Your task to perform on an android device: create a new album in the google photos Image 0: 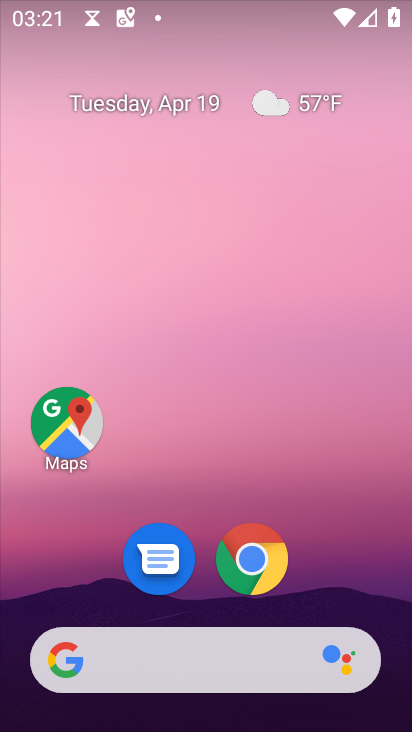
Step 0: drag from (207, 604) to (210, 28)
Your task to perform on an android device: create a new album in the google photos Image 1: 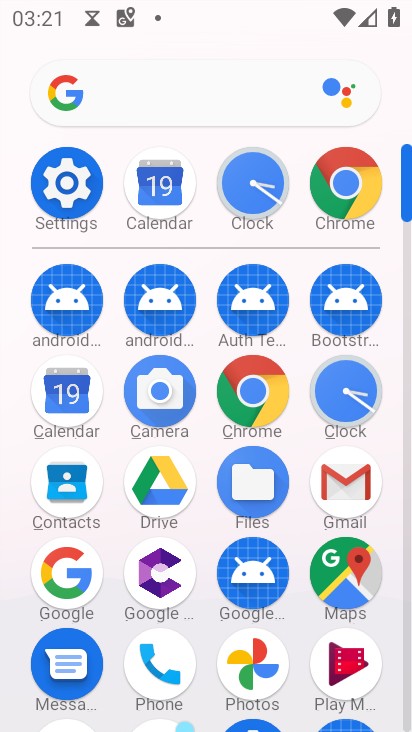
Step 1: drag from (203, 529) to (243, 47)
Your task to perform on an android device: create a new album in the google photos Image 2: 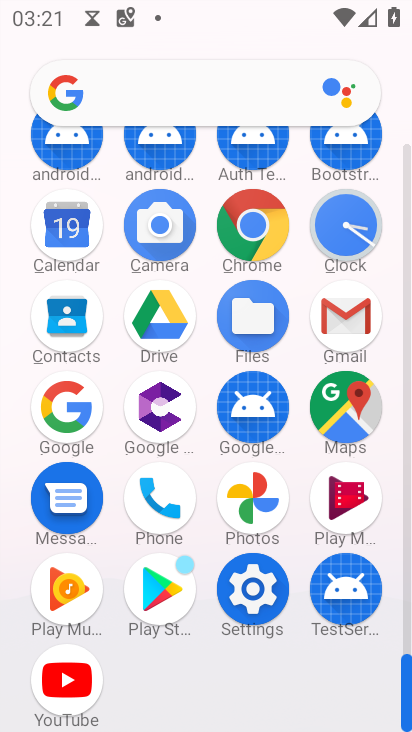
Step 2: click (250, 492)
Your task to perform on an android device: create a new album in the google photos Image 3: 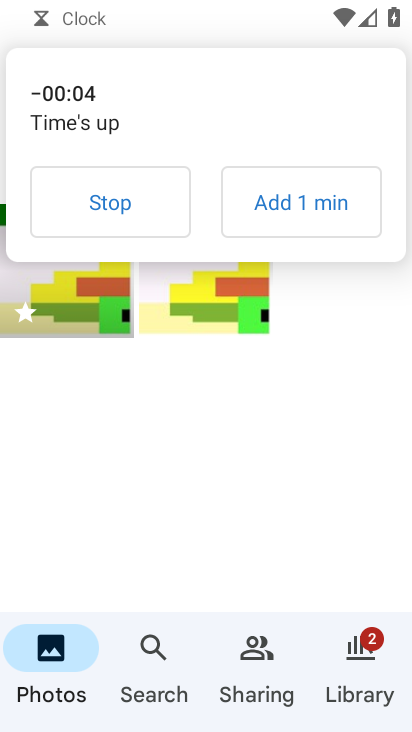
Step 3: click (93, 209)
Your task to perform on an android device: create a new album in the google photos Image 4: 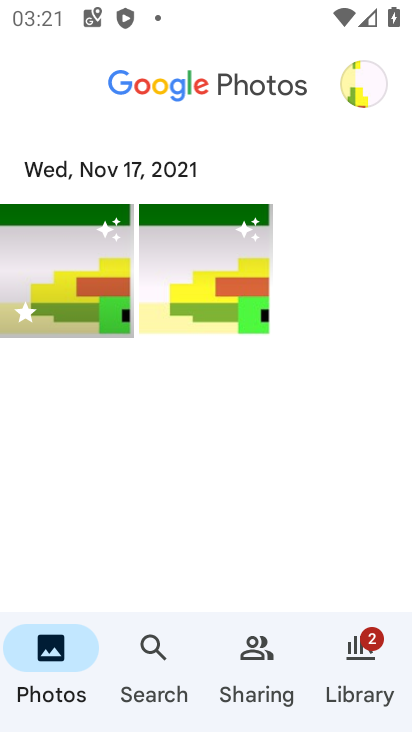
Step 4: click (358, 654)
Your task to perform on an android device: create a new album in the google photos Image 5: 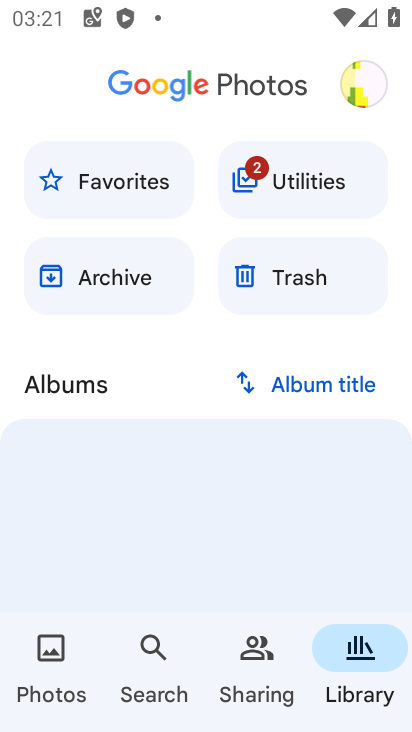
Step 5: click (153, 645)
Your task to perform on an android device: create a new album in the google photos Image 6: 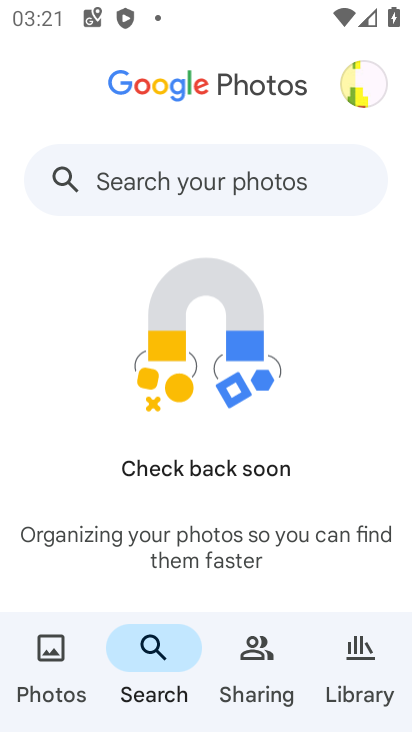
Step 6: click (177, 185)
Your task to perform on an android device: create a new album in the google photos Image 7: 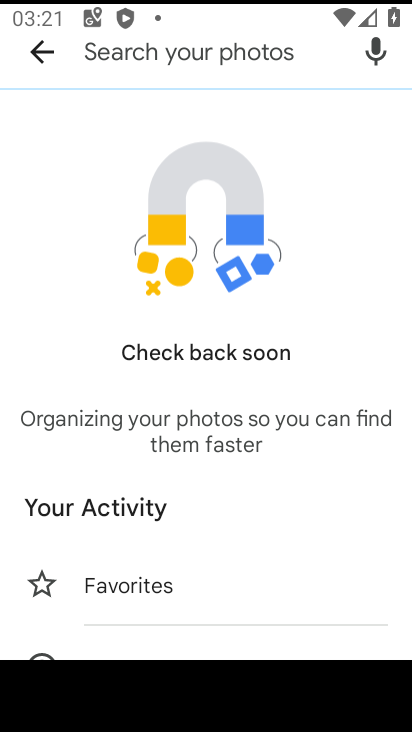
Step 7: click (43, 58)
Your task to perform on an android device: create a new album in the google photos Image 8: 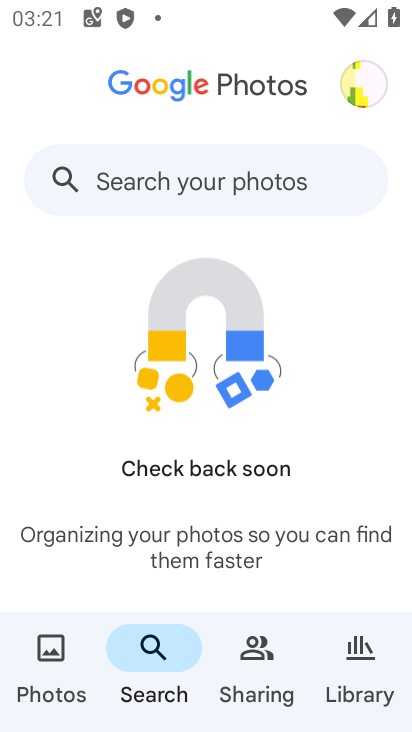
Step 8: click (256, 640)
Your task to perform on an android device: create a new album in the google photos Image 9: 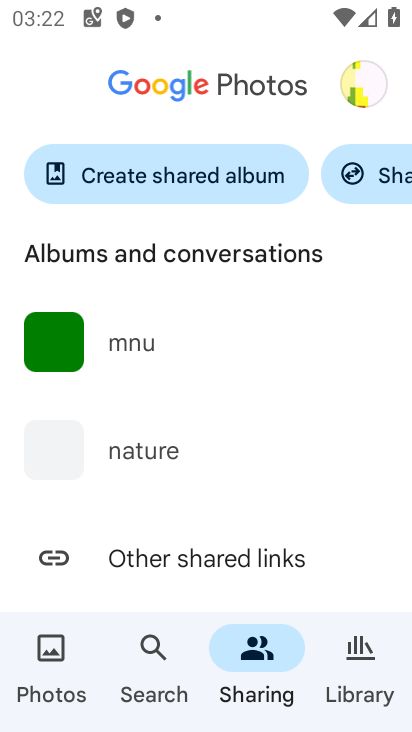
Step 9: click (211, 165)
Your task to perform on an android device: create a new album in the google photos Image 10: 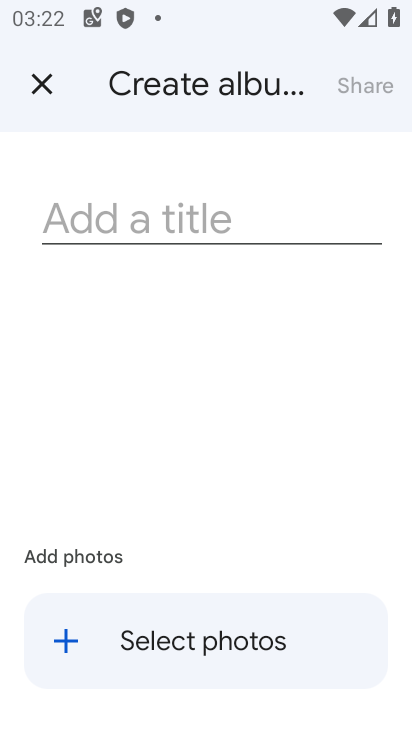
Step 10: click (125, 219)
Your task to perform on an android device: create a new album in the google photos Image 11: 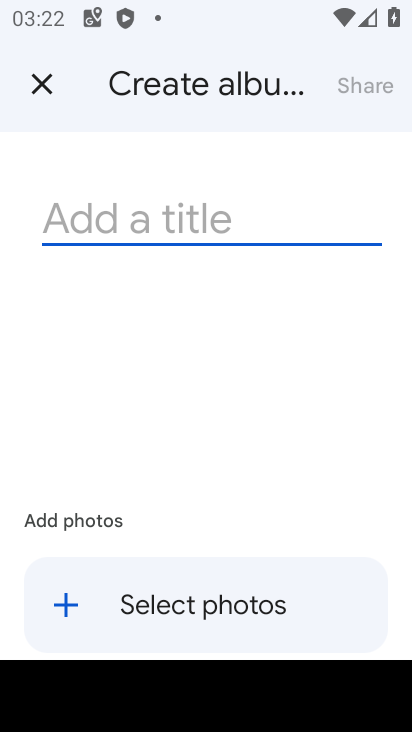
Step 11: type "bnbvhgf"
Your task to perform on an android device: create a new album in the google photos Image 12: 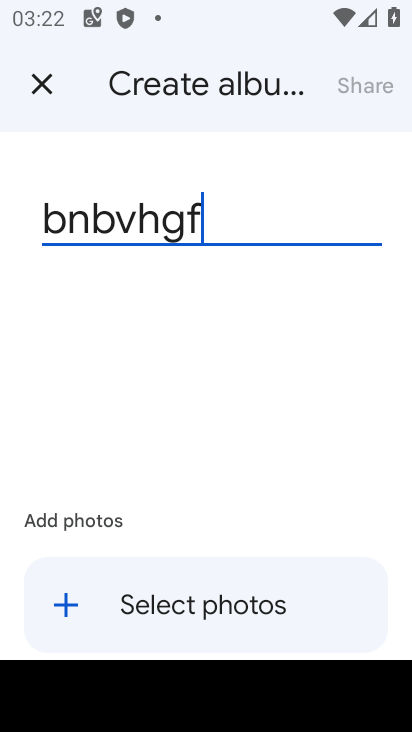
Step 12: click (90, 605)
Your task to perform on an android device: create a new album in the google photos Image 13: 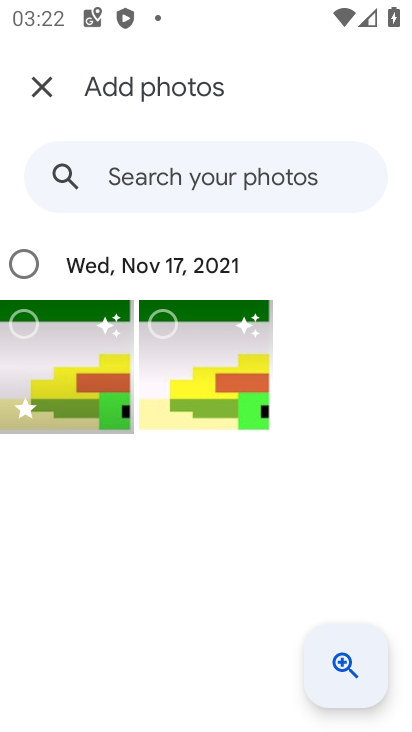
Step 13: click (36, 269)
Your task to perform on an android device: create a new album in the google photos Image 14: 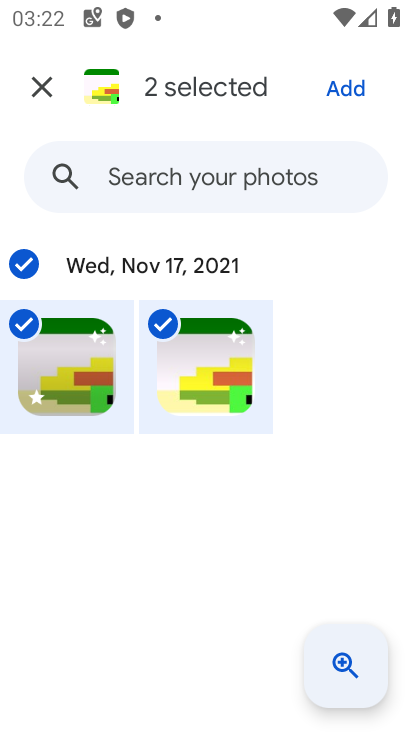
Step 14: click (338, 88)
Your task to perform on an android device: create a new album in the google photos Image 15: 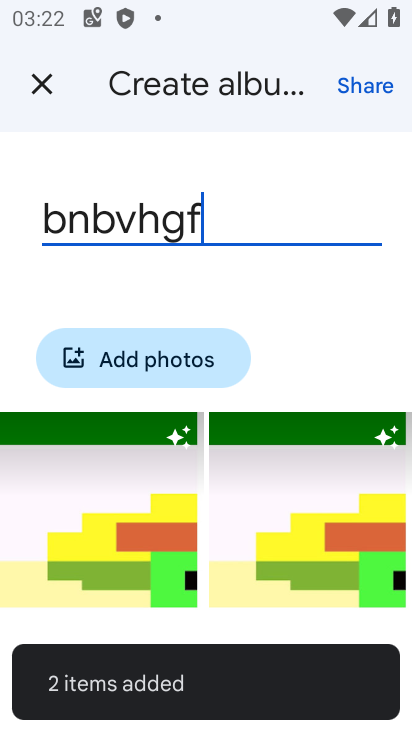
Step 15: click (296, 308)
Your task to perform on an android device: create a new album in the google photos Image 16: 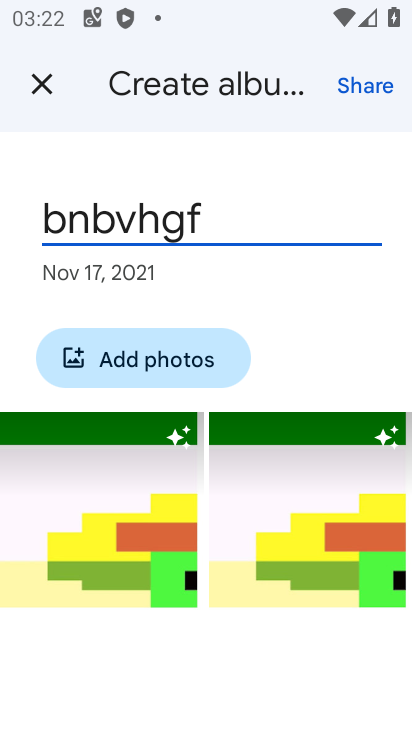
Step 16: task complete